Your task to perform on an android device: turn on bluetooth scan Image 0: 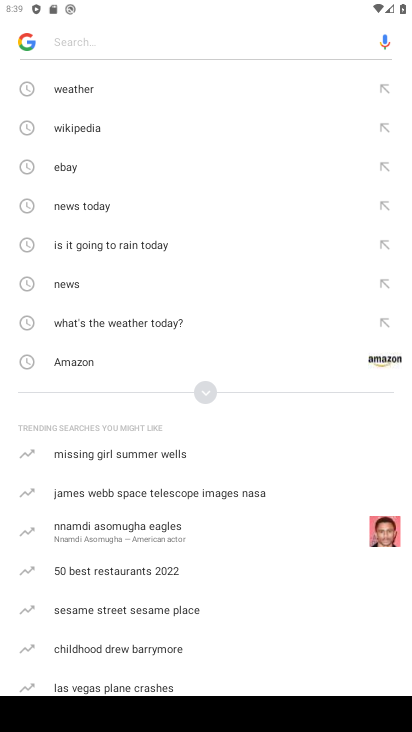
Step 0: press back button
Your task to perform on an android device: turn on bluetooth scan Image 1: 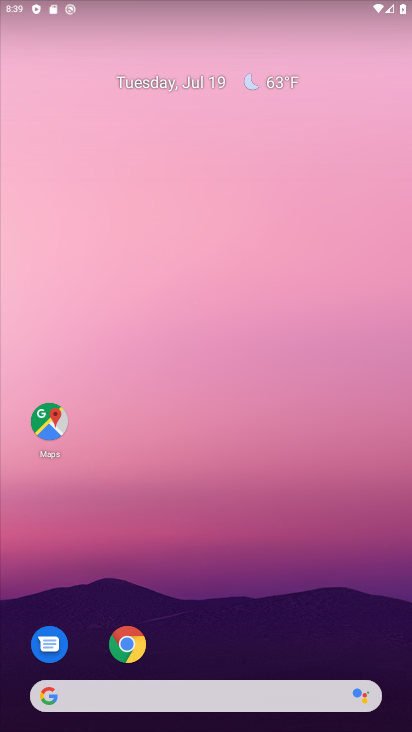
Step 1: drag from (240, 560) to (174, 244)
Your task to perform on an android device: turn on bluetooth scan Image 2: 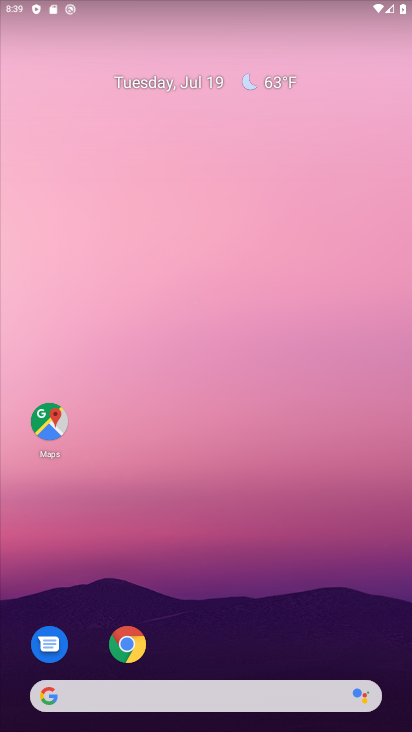
Step 2: drag from (237, 447) to (178, 67)
Your task to perform on an android device: turn on bluetooth scan Image 3: 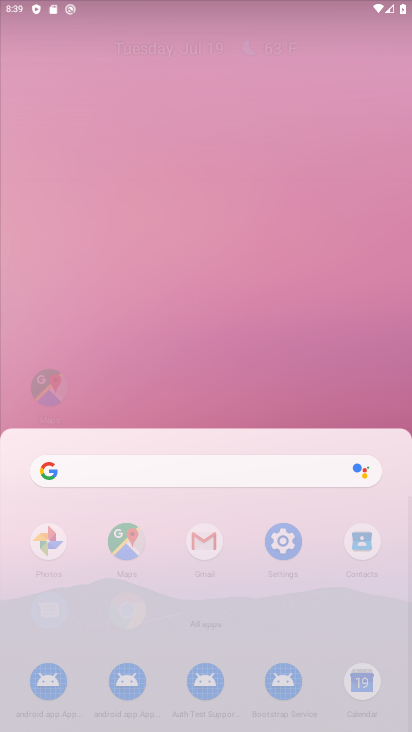
Step 3: drag from (224, 427) to (234, 131)
Your task to perform on an android device: turn on bluetooth scan Image 4: 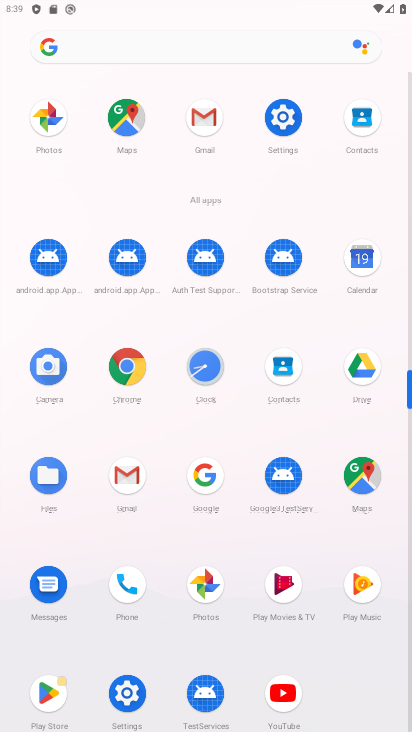
Step 4: click (282, 114)
Your task to perform on an android device: turn on bluetooth scan Image 5: 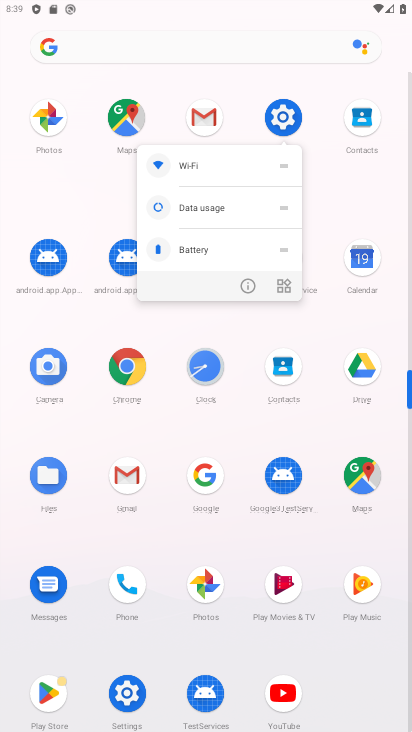
Step 5: click (287, 122)
Your task to perform on an android device: turn on bluetooth scan Image 6: 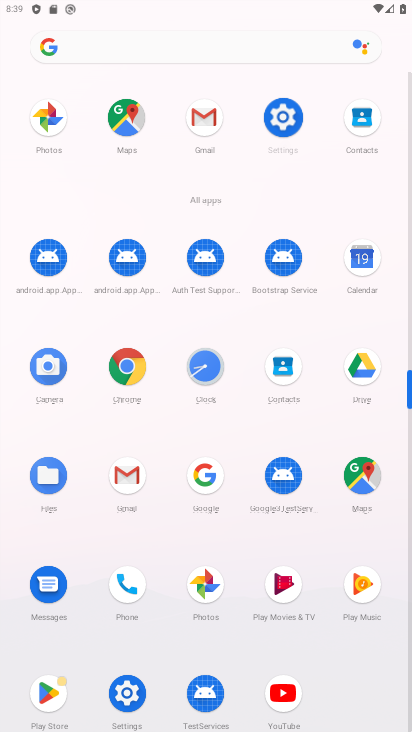
Step 6: click (287, 122)
Your task to perform on an android device: turn on bluetooth scan Image 7: 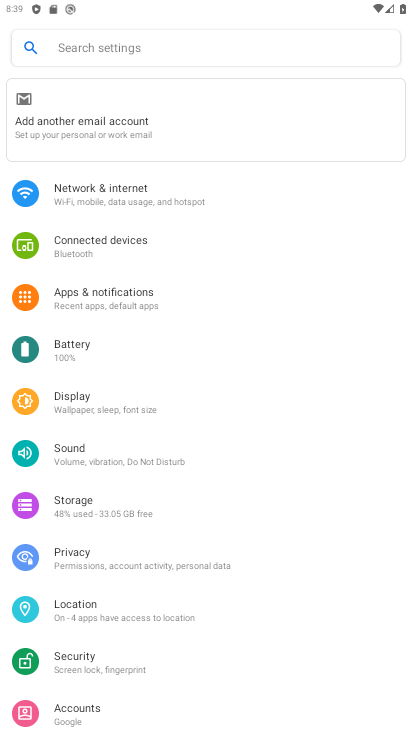
Step 7: drag from (85, 519) to (57, 274)
Your task to perform on an android device: turn on bluetooth scan Image 8: 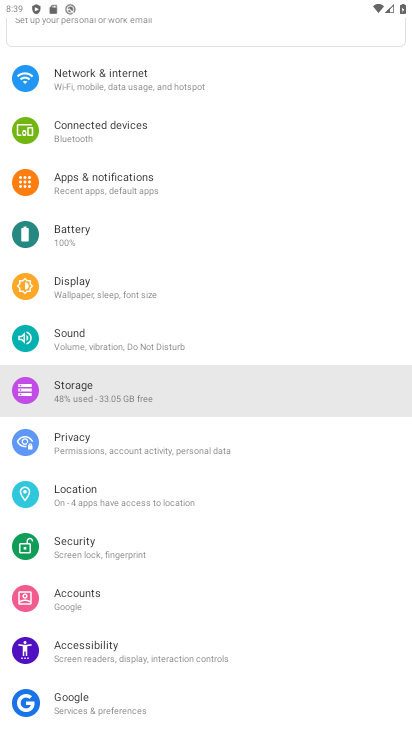
Step 8: drag from (140, 484) to (157, 357)
Your task to perform on an android device: turn on bluetooth scan Image 9: 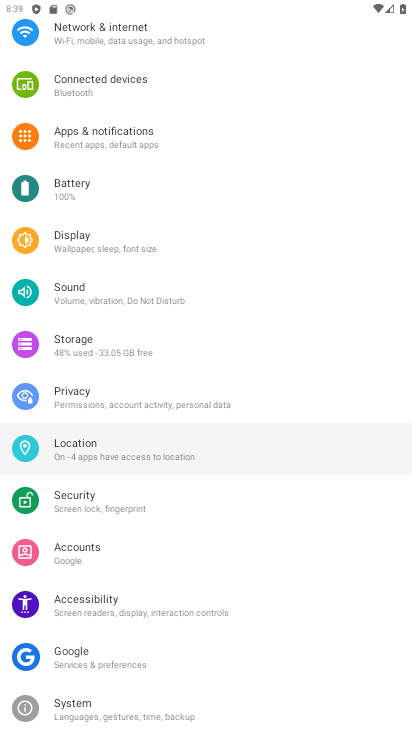
Step 9: drag from (175, 503) to (190, 273)
Your task to perform on an android device: turn on bluetooth scan Image 10: 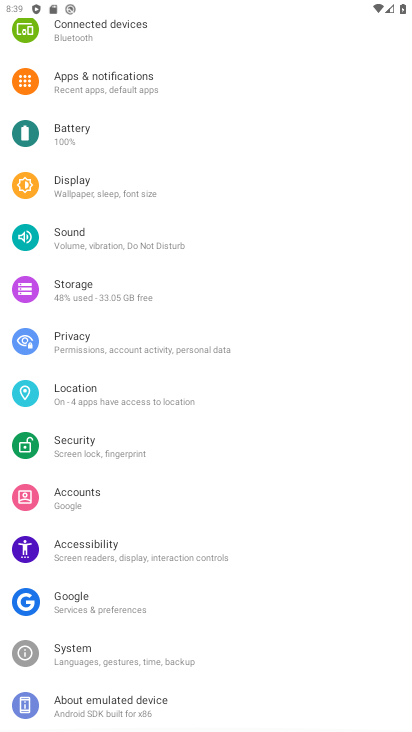
Step 10: drag from (119, 560) to (108, 324)
Your task to perform on an android device: turn on bluetooth scan Image 11: 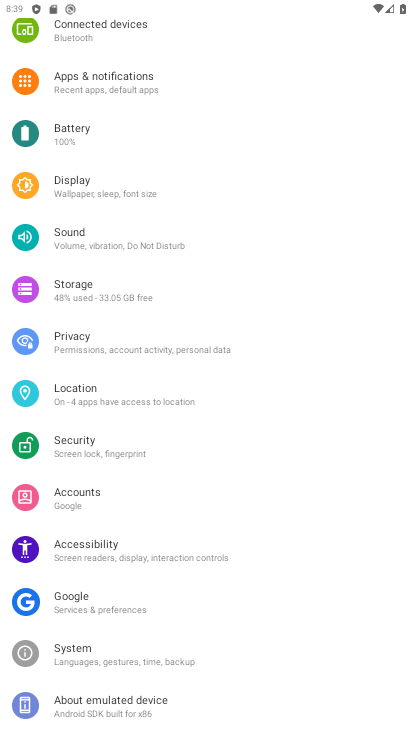
Step 11: drag from (153, 464) to (153, 340)
Your task to perform on an android device: turn on bluetooth scan Image 12: 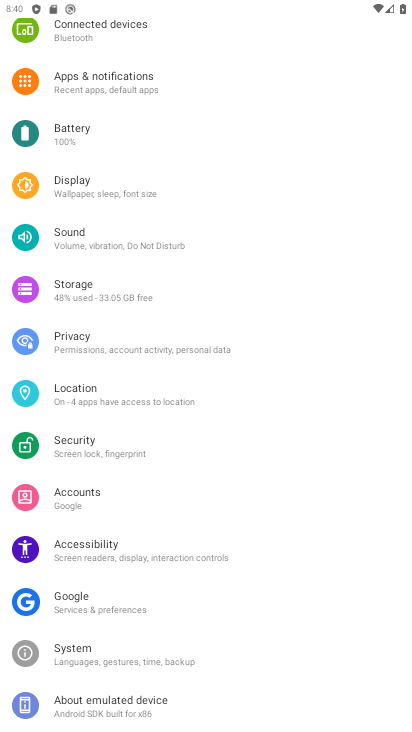
Step 12: click (87, 390)
Your task to perform on an android device: turn on bluetooth scan Image 13: 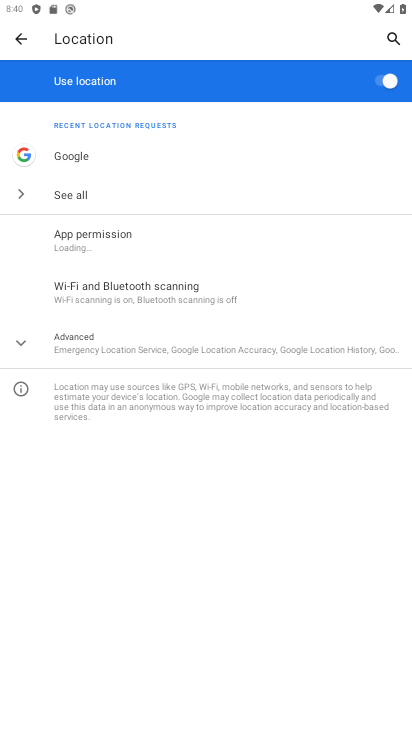
Step 13: click (106, 287)
Your task to perform on an android device: turn on bluetooth scan Image 14: 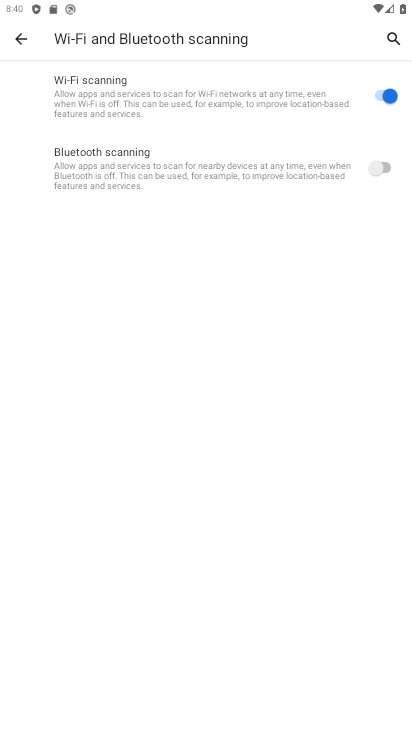
Step 14: click (374, 169)
Your task to perform on an android device: turn on bluetooth scan Image 15: 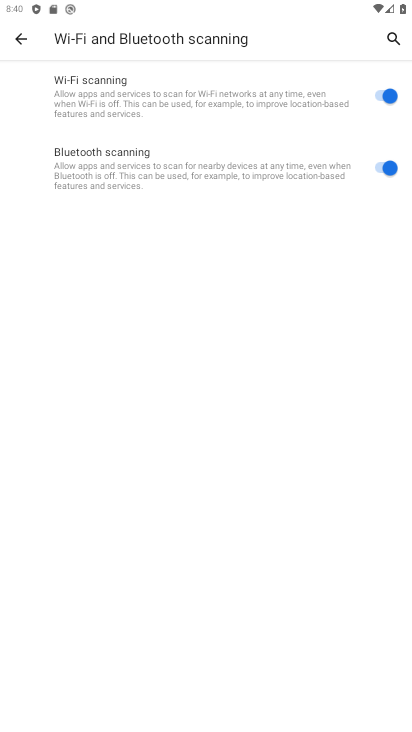
Step 15: task complete